Your task to perform on an android device: clear all cookies in the chrome app Image 0: 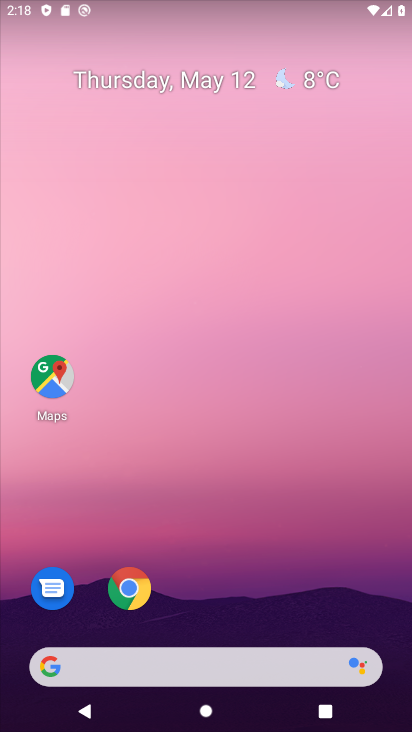
Step 0: click (132, 587)
Your task to perform on an android device: clear all cookies in the chrome app Image 1: 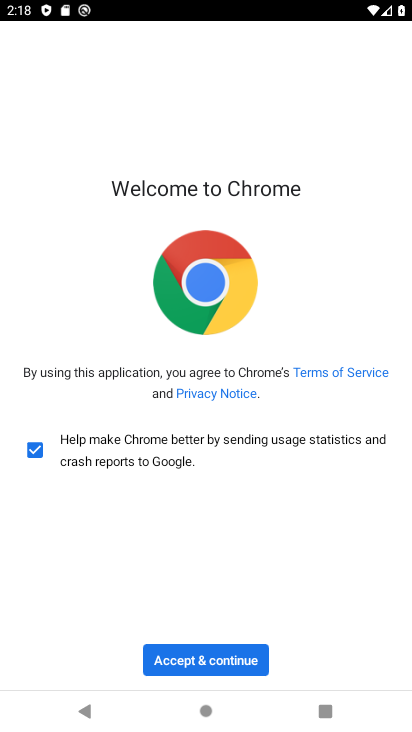
Step 1: click (155, 661)
Your task to perform on an android device: clear all cookies in the chrome app Image 2: 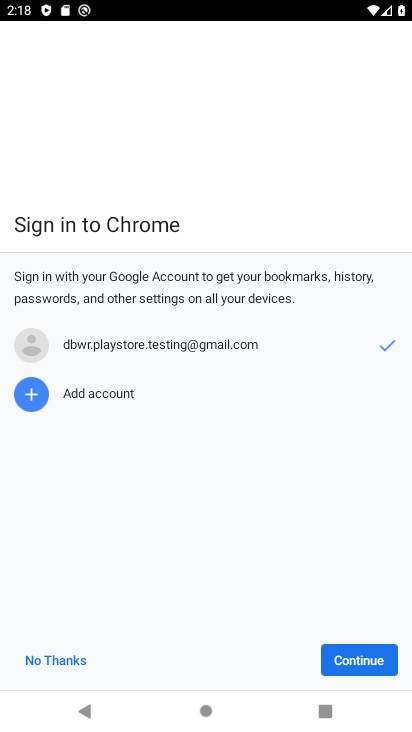
Step 2: click (373, 669)
Your task to perform on an android device: clear all cookies in the chrome app Image 3: 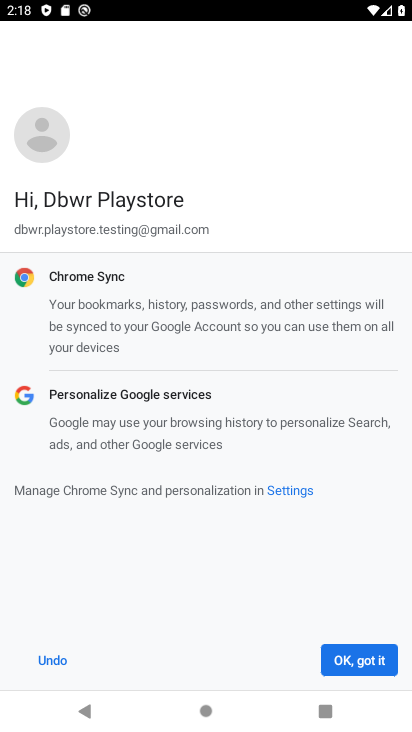
Step 3: click (373, 669)
Your task to perform on an android device: clear all cookies in the chrome app Image 4: 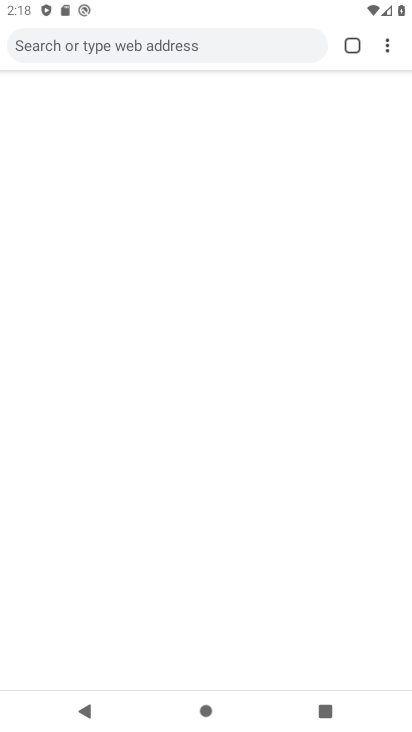
Step 4: click (373, 669)
Your task to perform on an android device: clear all cookies in the chrome app Image 5: 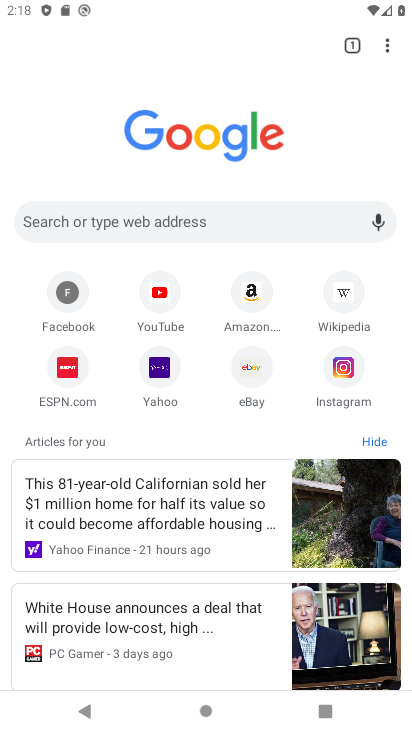
Step 5: click (389, 59)
Your task to perform on an android device: clear all cookies in the chrome app Image 6: 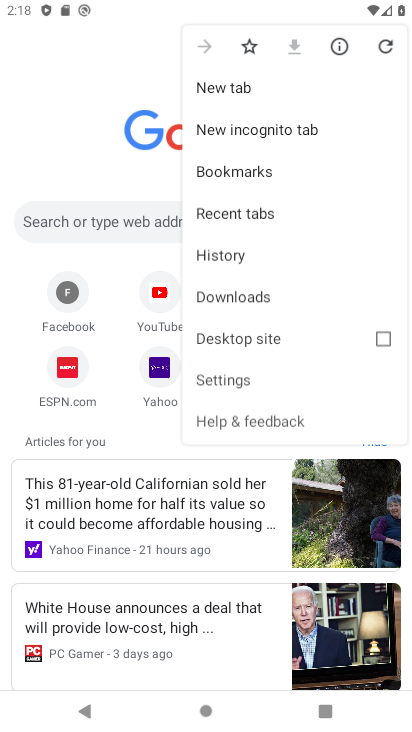
Step 6: click (389, 59)
Your task to perform on an android device: clear all cookies in the chrome app Image 7: 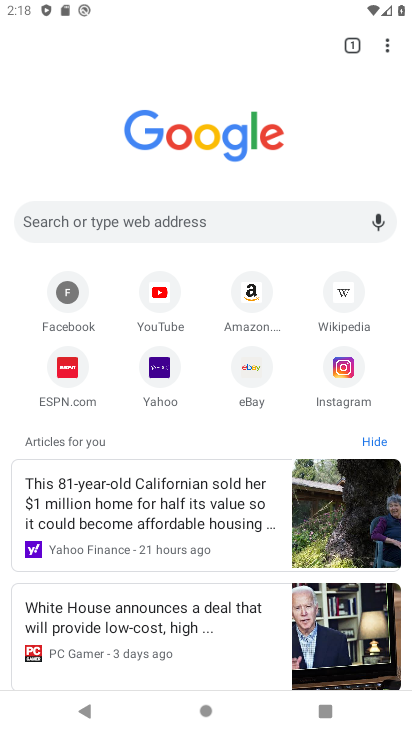
Step 7: click (389, 59)
Your task to perform on an android device: clear all cookies in the chrome app Image 8: 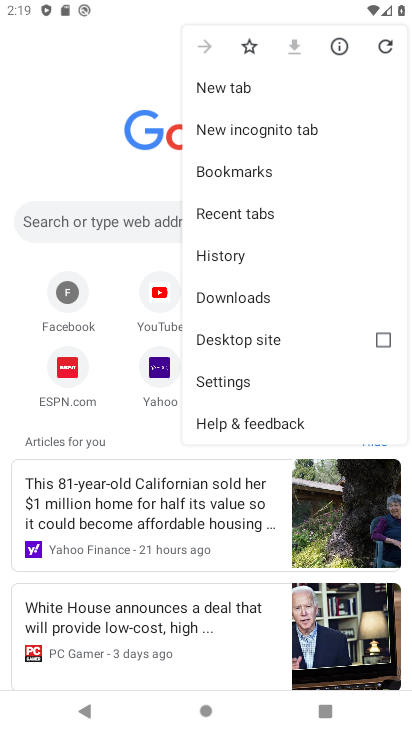
Step 8: click (248, 383)
Your task to perform on an android device: clear all cookies in the chrome app Image 9: 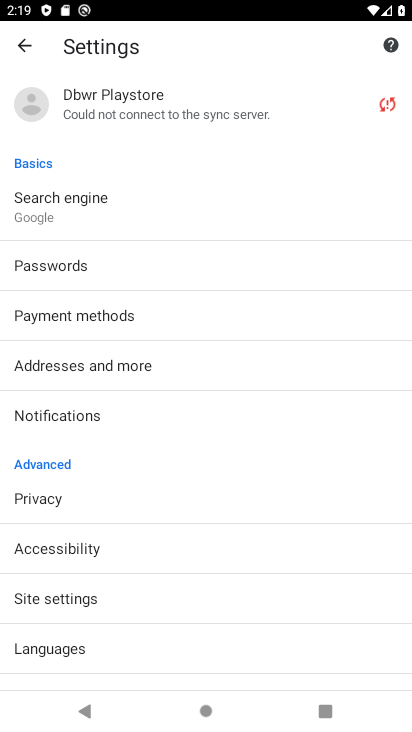
Step 9: drag from (100, 632) to (129, 342)
Your task to perform on an android device: clear all cookies in the chrome app Image 10: 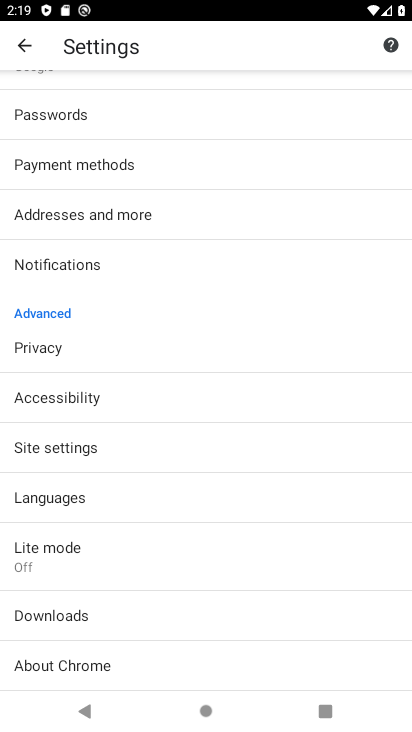
Step 10: click (88, 713)
Your task to perform on an android device: clear all cookies in the chrome app Image 11: 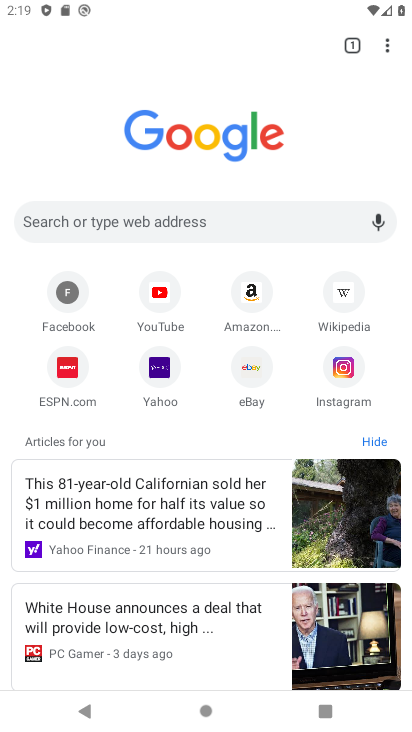
Step 11: click (379, 55)
Your task to perform on an android device: clear all cookies in the chrome app Image 12: 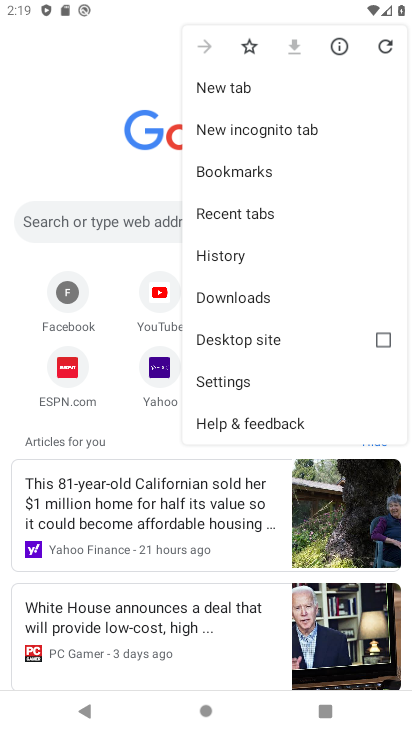
Step 12: click (247, 257)
Your task to perform on an android device: clear all cookies in the chrome app Image 13: 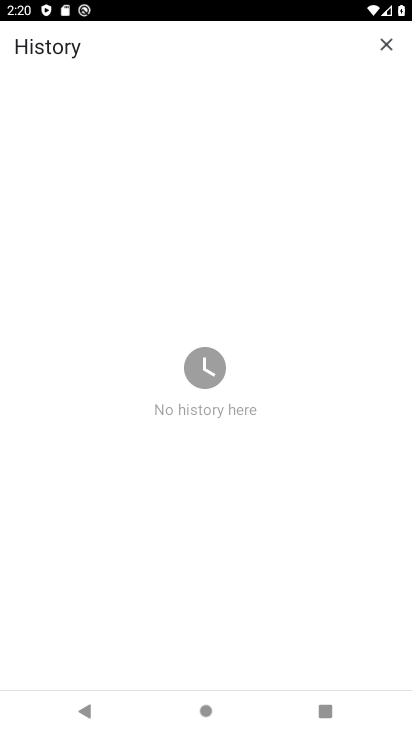
Step 13: task complete